Your task to perform on an android device: toggle priority inbox in the gmail app Image 0: 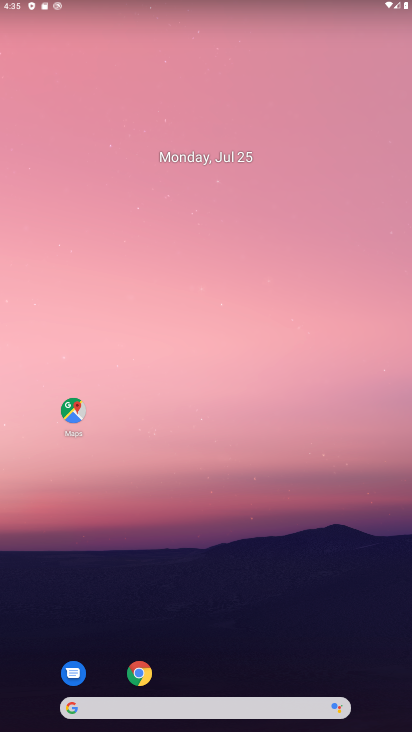
Step 0: drag from (262, 561) to (273, 149)
Your task to perform on an android device: toggle priority inbox in the gmail app Image 1: 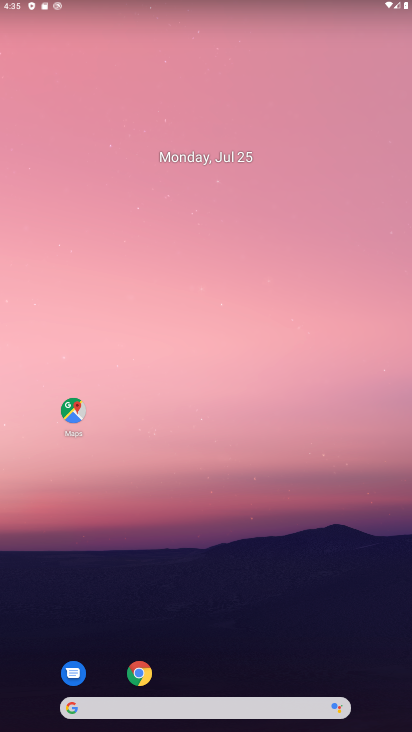
Step 1: drag from (292, 598) to (226, 116)
Your task to perform on an android device: toggle priority inbox in the gmail app Image 2: 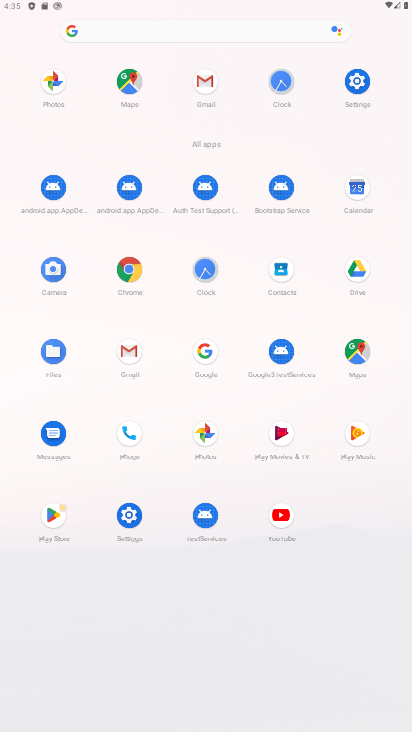
Step 2: click (219, 61)
Your task to perform on an android device: toggle priority inbox in the gmail app Image 3: 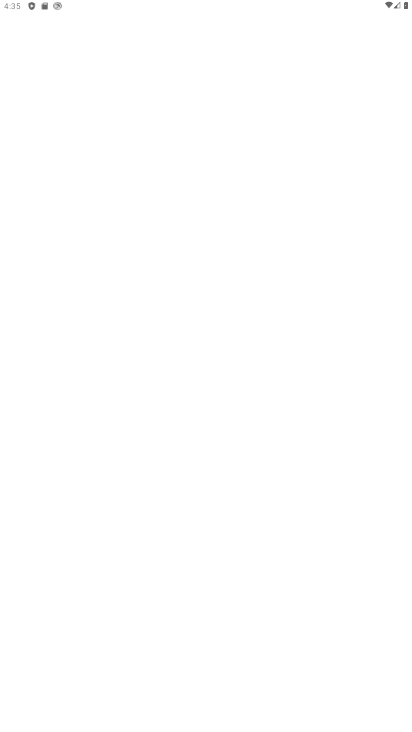
Step 3: drag from (173, 538) to (132, 107)
Your task to perform on an android device: toggle priority inbox in the gmail app Image 4: 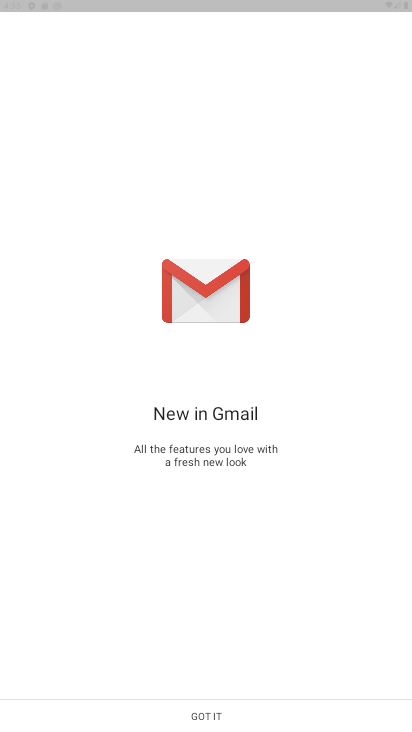
Step 4: drag from (173, 407) to (154, 183)
Your task to perform on an android device: toggle priority inbox in the gmail app Image 5: 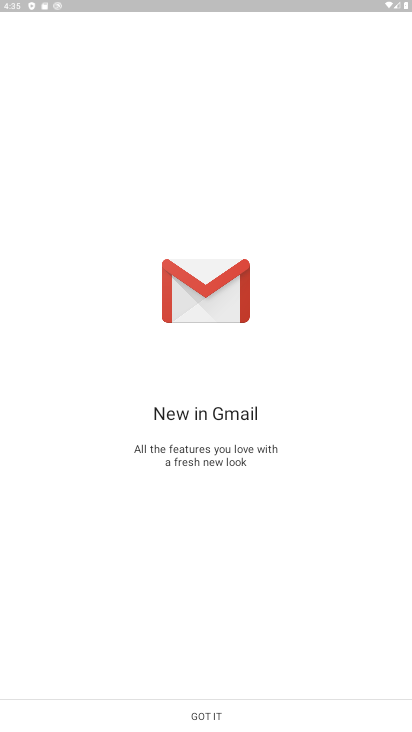
Step 5: click (208, 713)
Your task to perform on an android device: toggle priority inbox in the gmail app Image 6: 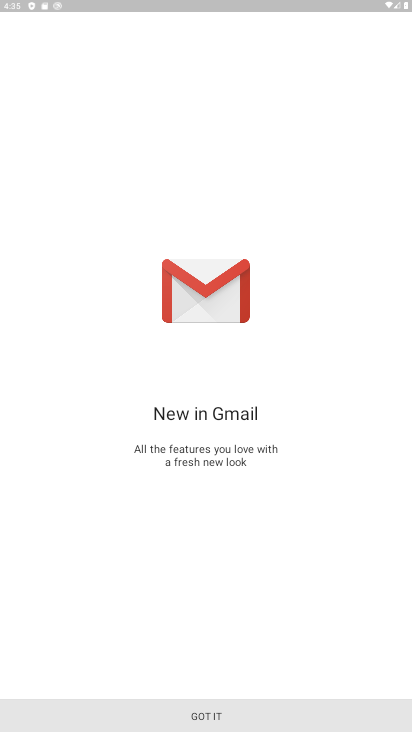
Step 6: click (204, 711)
Your task to perform on an android device: toggle priority inbox in the gmail app Image 7: 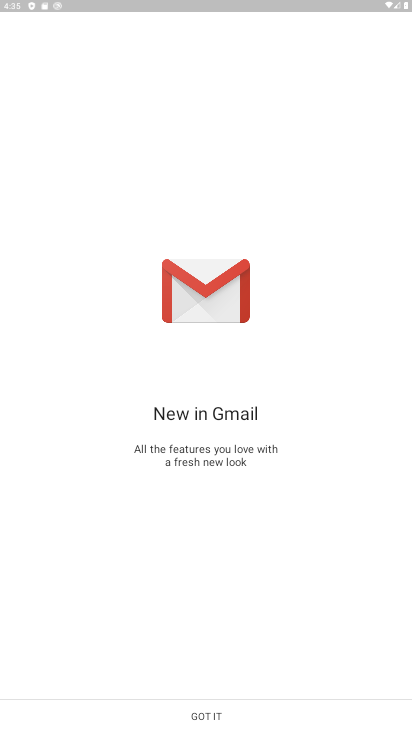
Step 7: click (204, 707)
Your task to perform on an android device: toggle priority inbox in the gmail app Image 8: 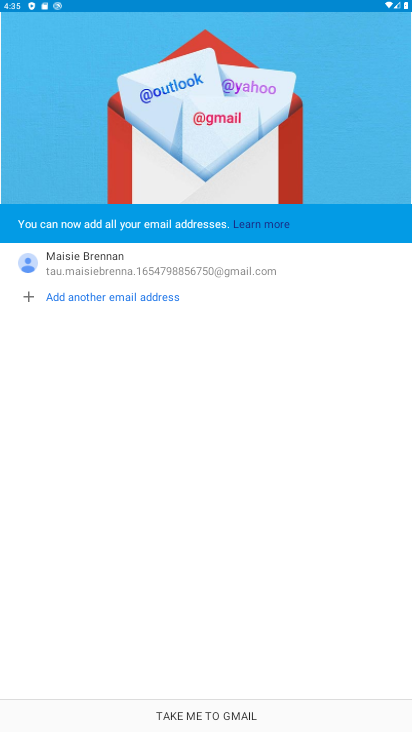
Step 8: click (223, 717)
Your task to perform on an android device: toggle priority inbox in the gmail app Image 9: 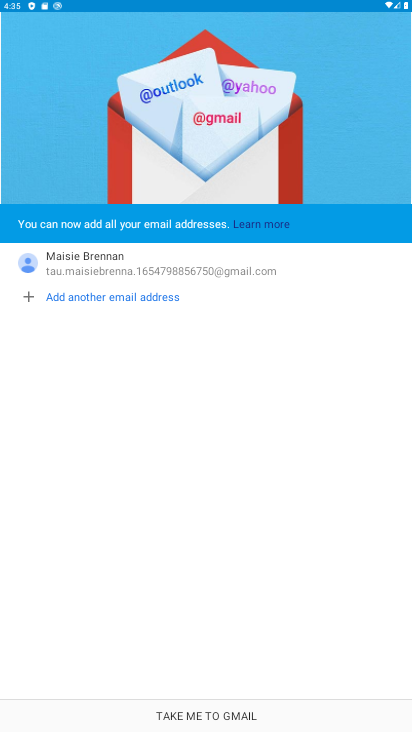
Step 9: click (228, 720)
Your task to perform on an android device: toggle priority inbox in the gmail app Image 10: 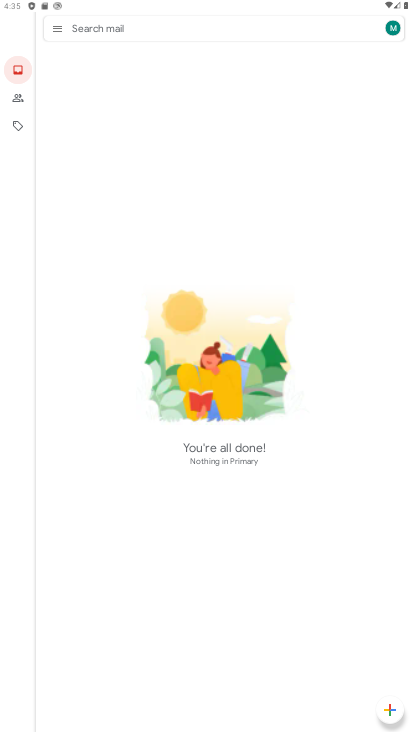
Step 10: click (56, 30)
Your task to perform on an android device: toggle priority inbox in the gmail app Image 11: 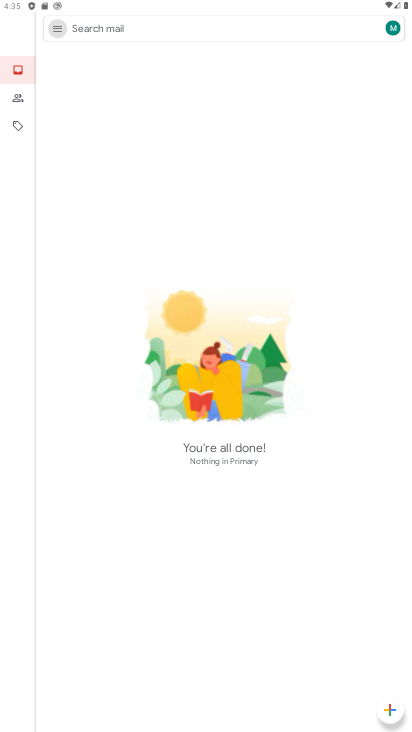
Step 11: click (59, 32)
Your task to perform on an android device: toggle priority inbox in the gmail app Image 12: 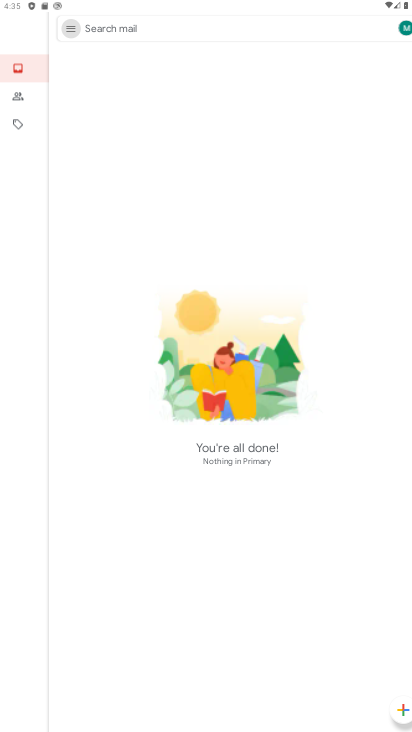
Step 12: click (63, 33)
Your task to perform on an android device: toggle priority inbox in the gmail app Image 13: 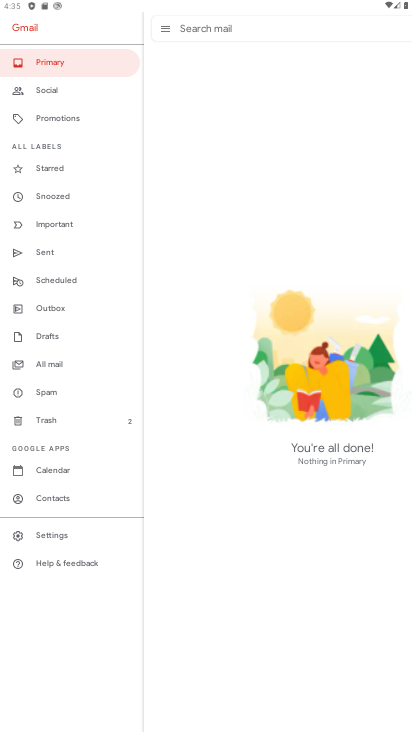
Step 13: click (49, 536)
Your task to perform on an android device: toggle priority inbox in the gmail app Image 14: 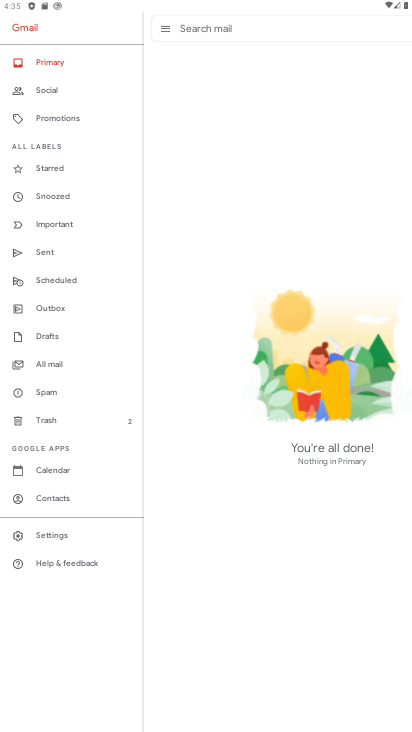
Step 14: click (49, 536)
Your task to perform on an android device: toggle priority inbox in the gmail app Image 15: 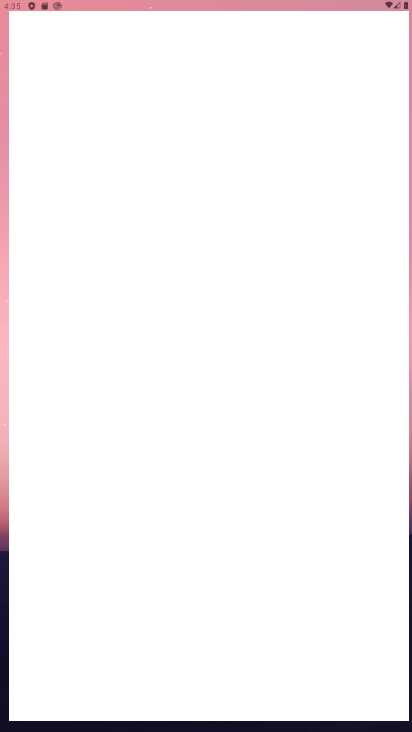
Step 15: click (54, 542)
Your task to perform on an android device: toggle priority inbox in the gmail app Image 16: 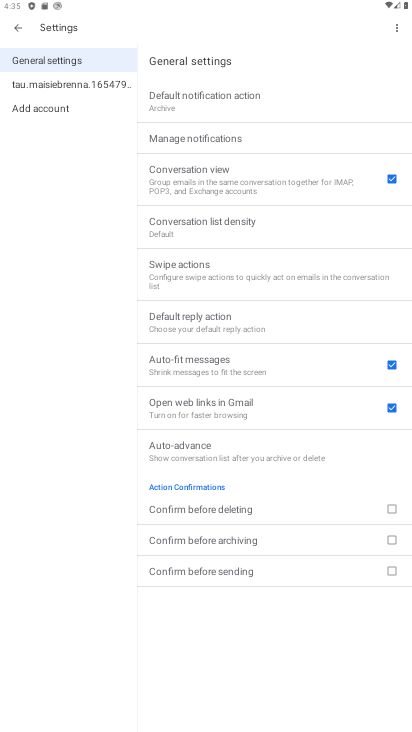
Step 16: click (54, 80)
Your task to perform on an android device: toggle priority inbox in the gmail app Image 17: 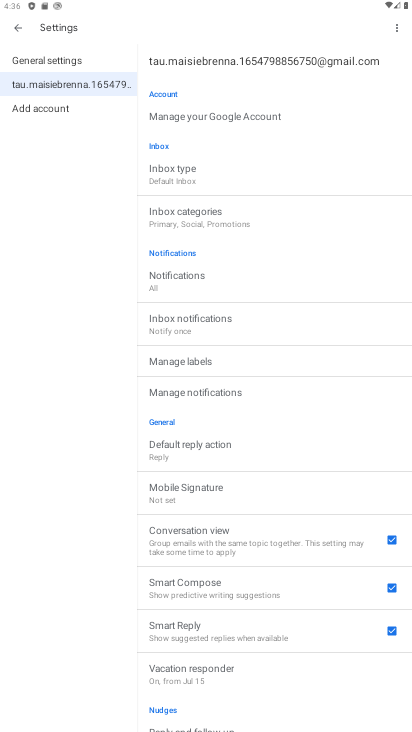
Step 17: click (177, 173)
Your task to perform on an android device: toggle priority inbox in the gmail app Image 18: 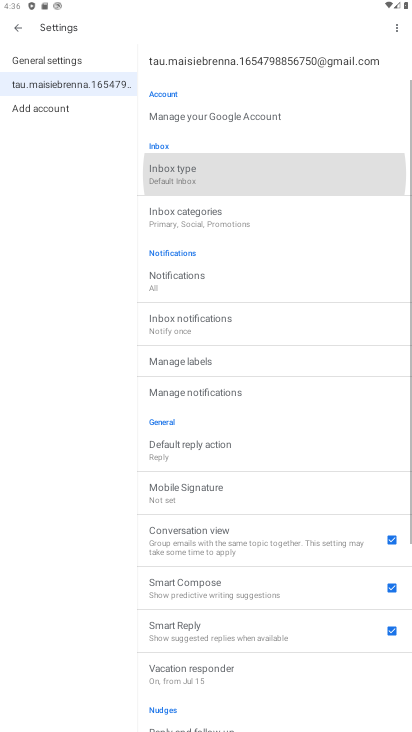
Step 18: click (177, 172)
Your task to perform on an android device: toggle priority inbox in the gmail app Image 19: 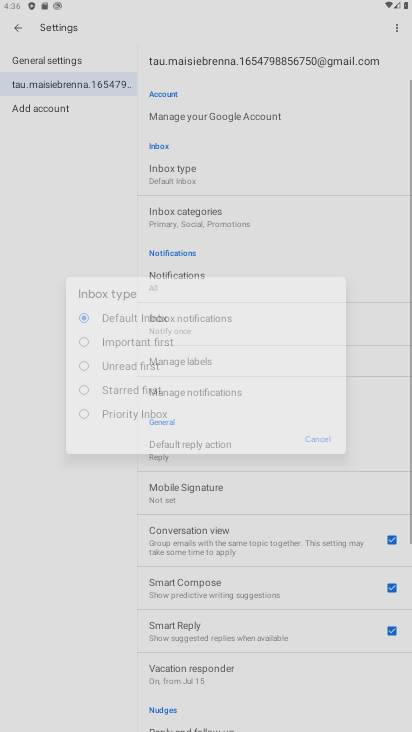
Step 19: click (178, 172)
Your task to perform on an android device: toggle priority inbox in the gmail app Image 20: 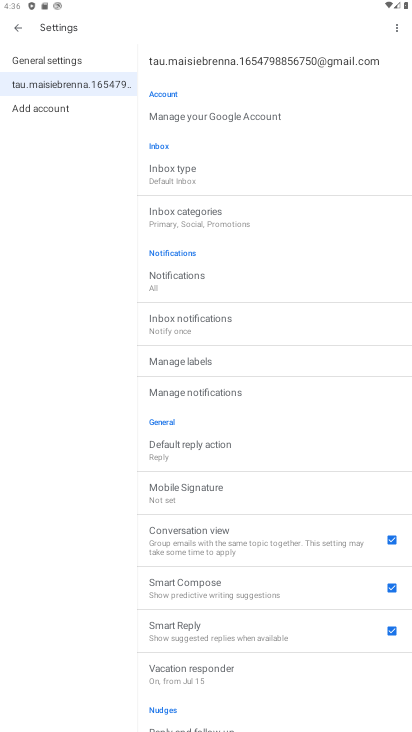
Step 20: click (165, 167)
Your task to perform on an android device: toggle priority inbox in the gmail app Image 21: 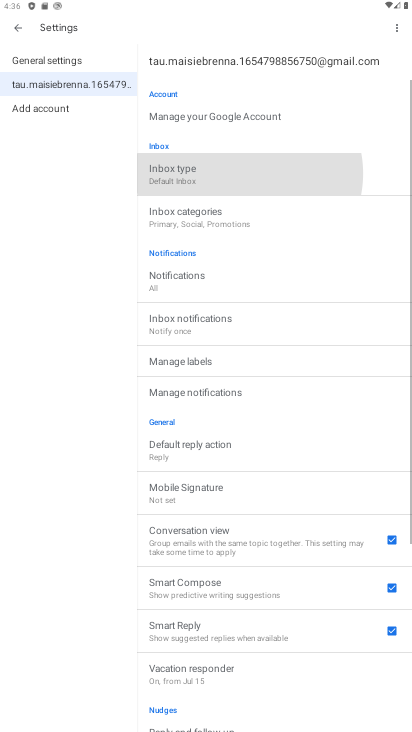
Step 21: click (172, 172)
Your task to perform on an android device: toggle priority inbox in the gmail app Image 22: 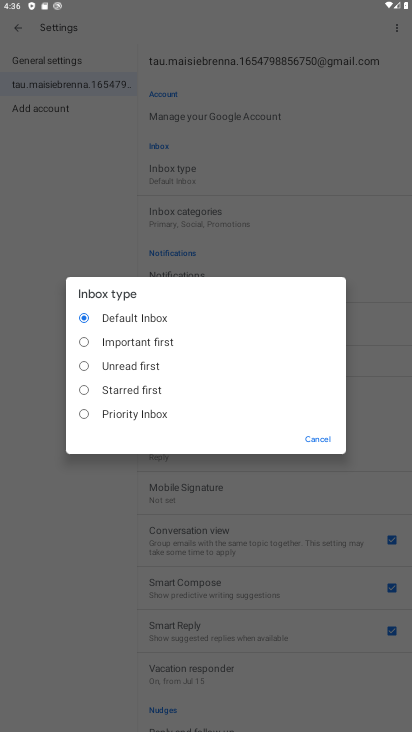
Step 22: click (84, 411)
Your task to perform on an android device: toggle priority inbox in the gmail app Image 23: 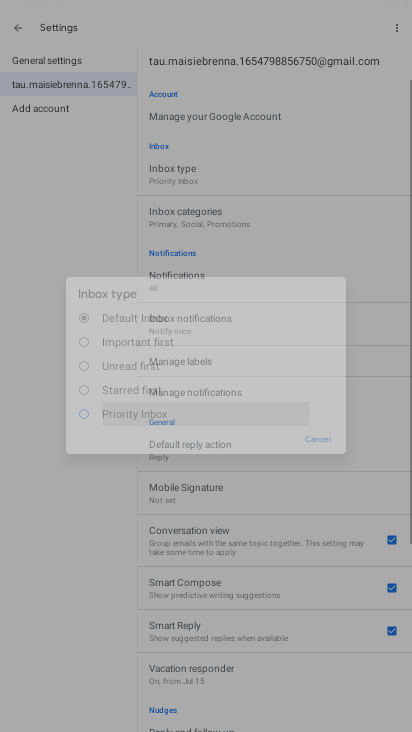
Step 23: click (81, 410)
Your task to perform on an android device: toggle priority inbox in the gmail app Image 24: 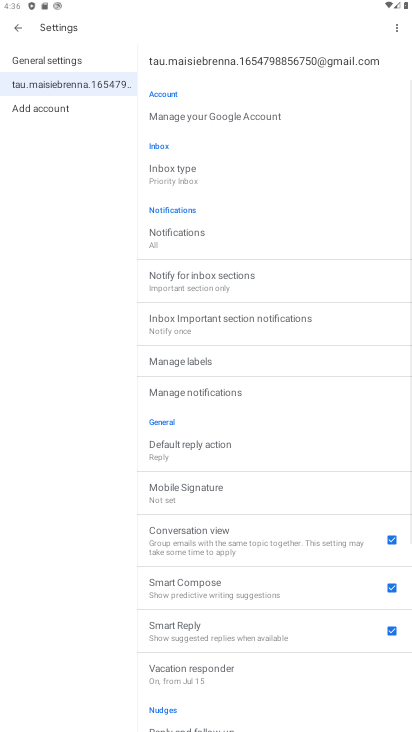
Step 24: task complete